Your task to perform on an android device: manage bookmarks in the chrome app Image 0: 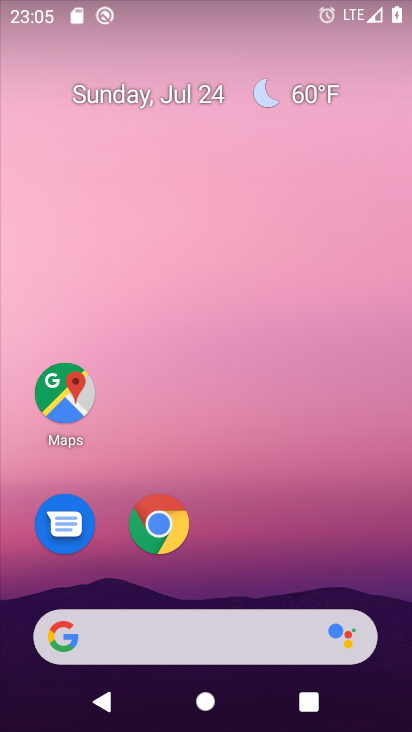
Step 0: click (162, 513)
Your task to perform on an android device: manage bookmarks in the chrome app Image 1: 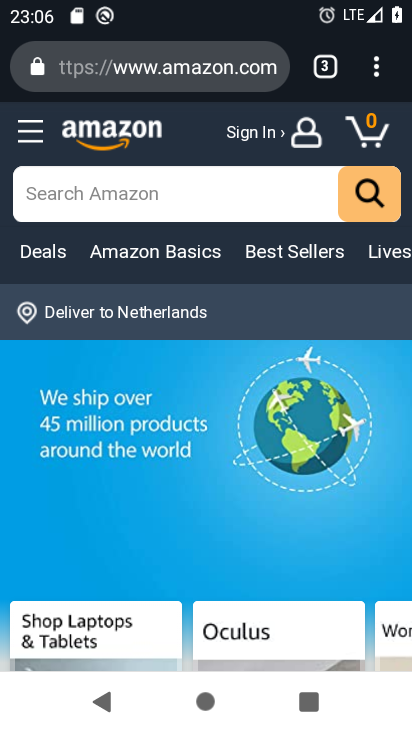
Step 1: click (378, 69)
Your task to perform on an android device: manage bookmarks in the chrome app Image 2: 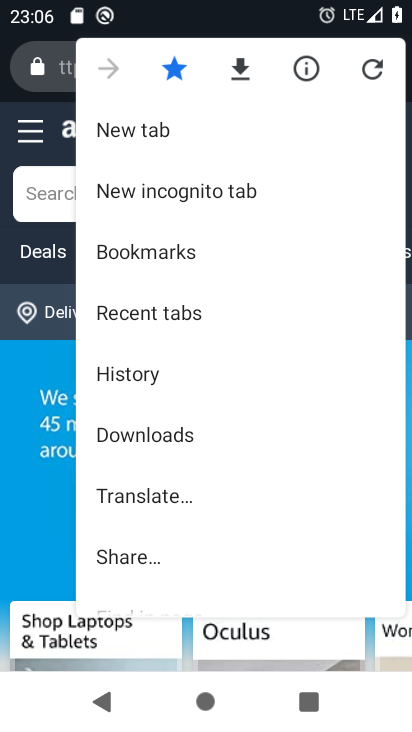
Step 2: click (190, 263)
Your task to perform on an android device: manage bookmarks in the chrome app Image 3: 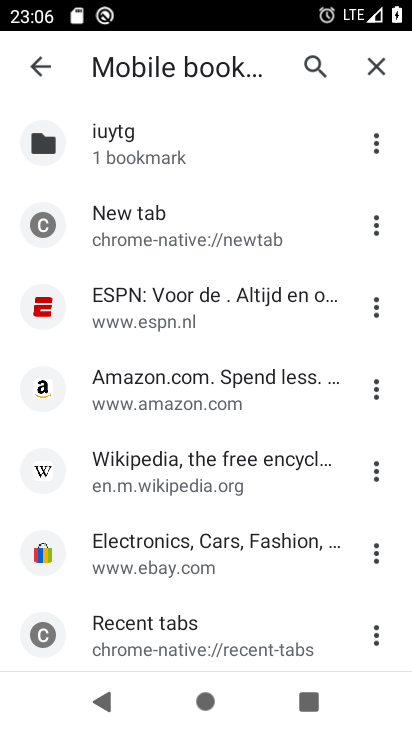
Step 3: click (372, 301)
Your task to perform on an android device: manage bookmarks in the chrome app Image 4: 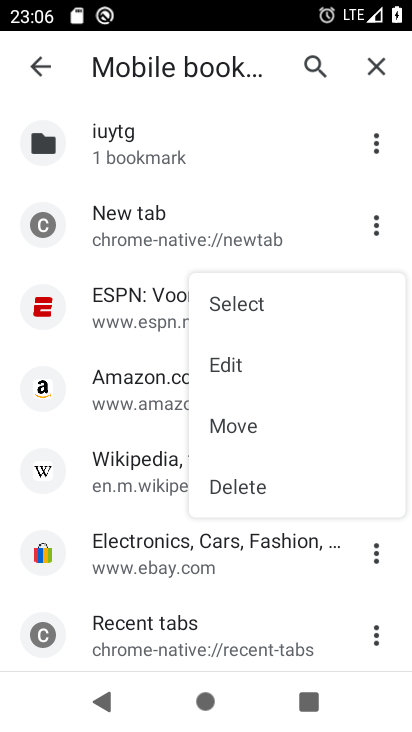
Step 4: click (262, 355)
Your task to perform on an android device: manage bookmarks in the chrome app Image 5: 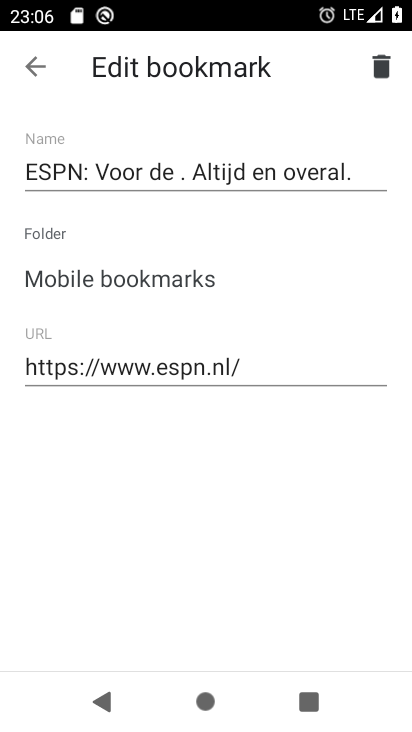
Step 5: task complete